Your task to perform on an android device: turn on notifications settings in the gmail app Image 0: 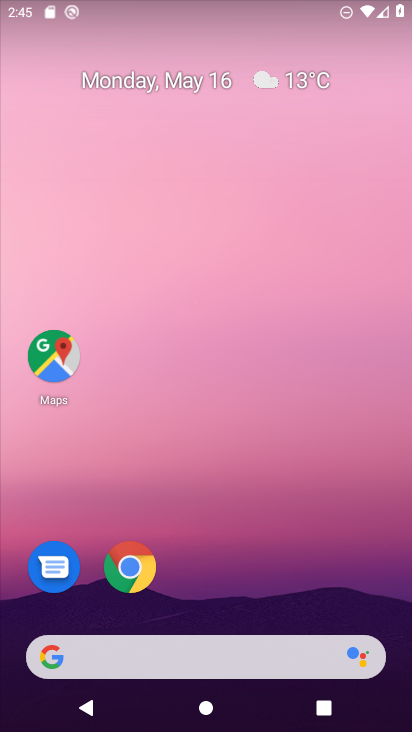
Step 0: drag from (292, 579) to (264, 18)
Your task to perform on an android device: turn on notifications settings in the gmail app Image 1: 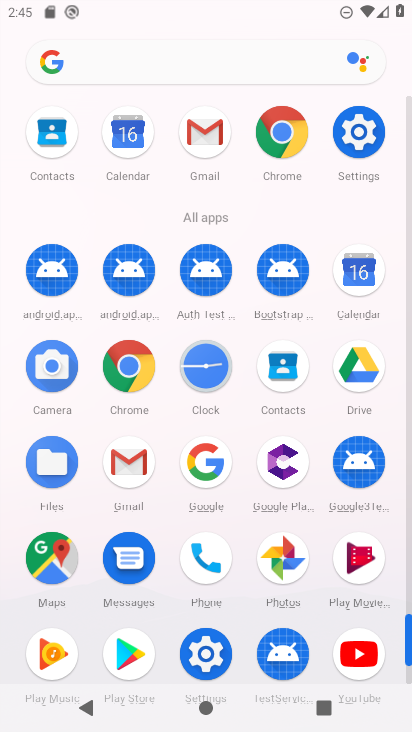
Step 1: click (138, 449)
Your task to perform on an android device: turn on notifications settings in the gmail app Image 2: 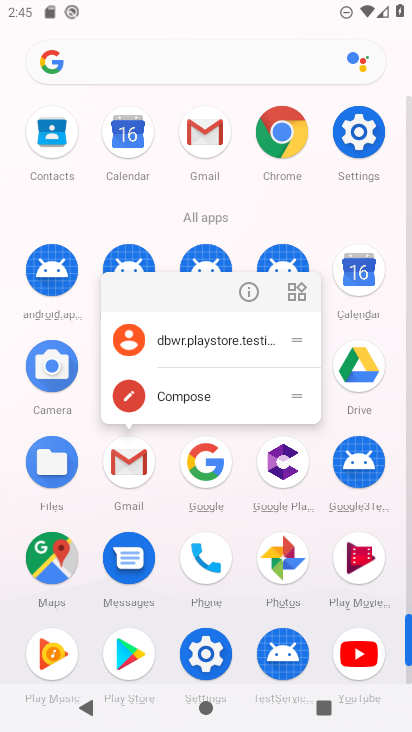
Step 2: click (249, 292)
Your task to perform on an android device: turn on notifications settings in the gmail app Image 3: 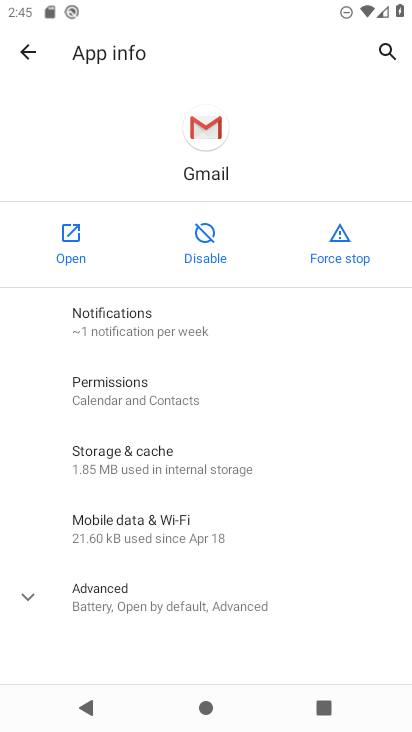
Step 3: click (111, 318)
Your task to perform on an android device: turn on notifications settings in the gmail app Image 4: 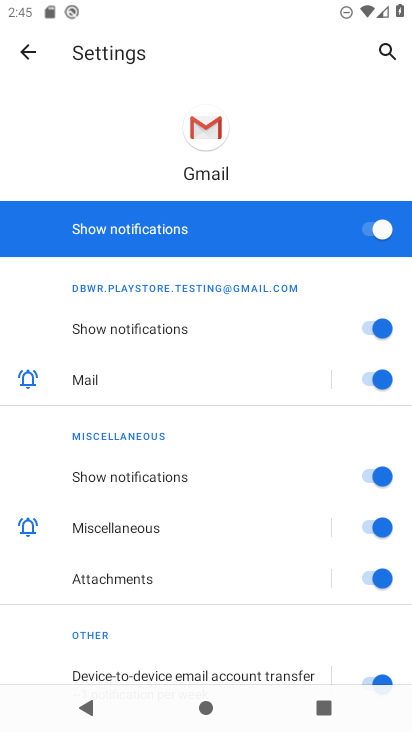
Step 4: task complete